Your task to perform on an android device: toggle show notifications on the lock screen Image 0: 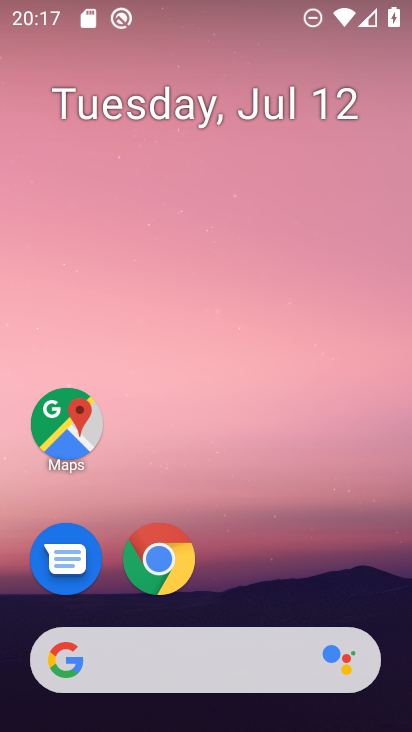
Step 0: drag from (379, 596) to (372, 178)
Your task to perform on an android device: toggle show notifications on the lock screen Image 1: 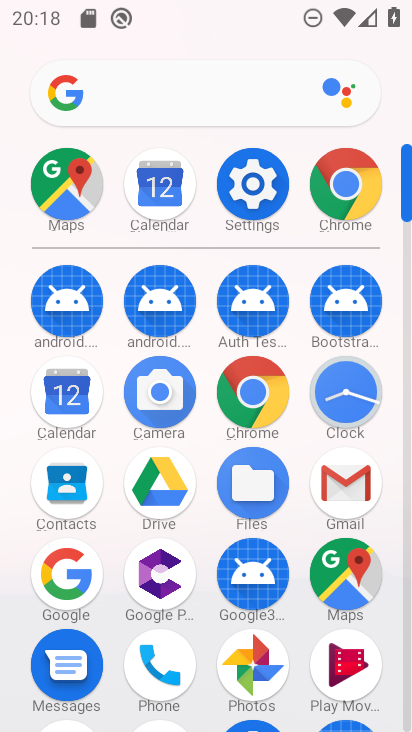
Step 1: click (261, 204)
Your task to perform on an android device: toggle show notifications on the lock screen Image 2: 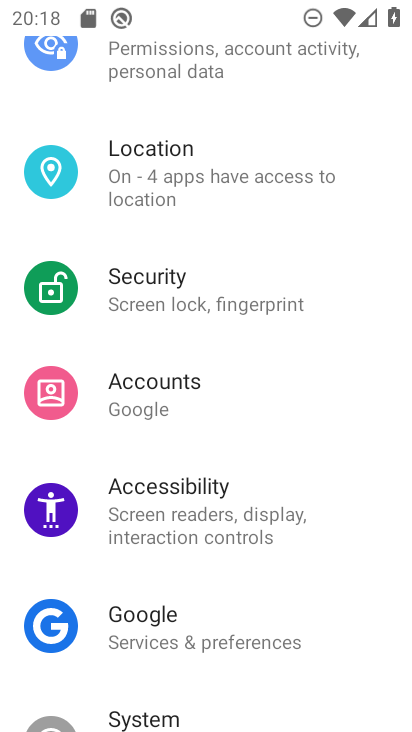
Step 2: drag from (363, 345) to (364, 405)
Your task to perform on an android device: toggle show notifications on the lock screen Image 3: 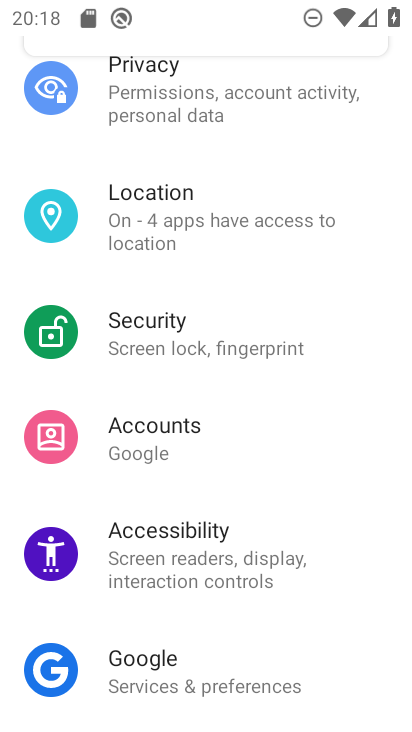
Step 3: drag from (361, 288) to (362, 409)
Your task to perform on an android device: toggle show notifications on the lock screen Image 4: 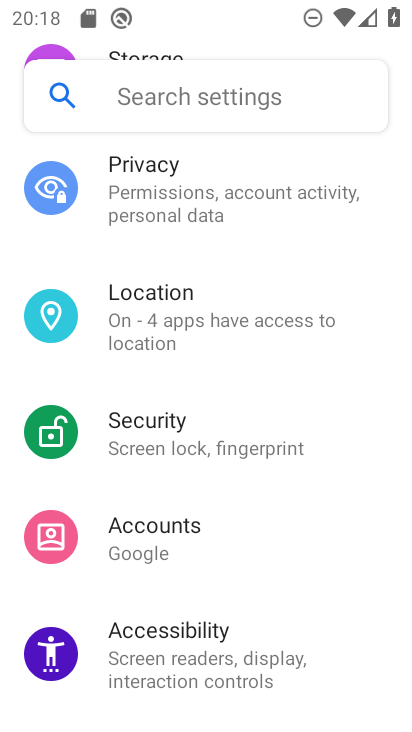
Step 4: drag from (361, 282) to (364, 378)
Your task to perform on an android device: toggle show notifications on the lock screen Image 5: 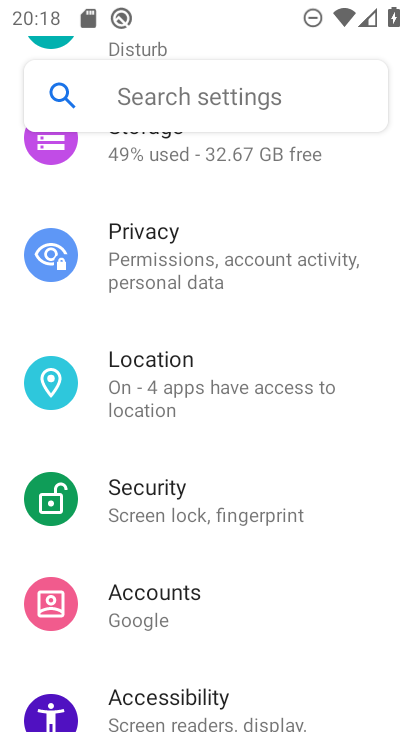
Step 5: drag from (376, 259) to (376, 355)
Your task to perform on an android device: toggle show notifications on the lock screen Image 6: 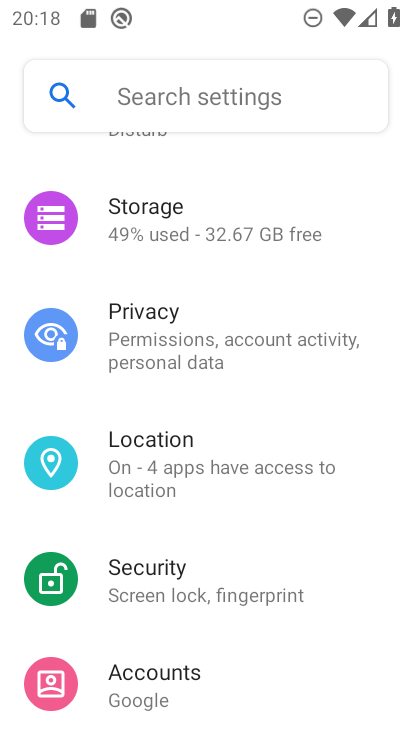
Step 6: drag from (378, 268) to (374, 366)
Your task to perform on an android device: toggle show notifications on the lock screen Image 7: 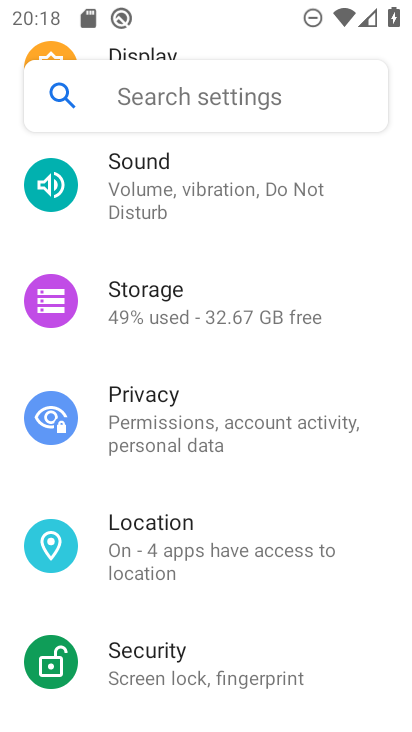
Step 7: drag from (375, 258) to (372, 344)
Your task to perform on an android device: toggle show notifications on the lock screen Image 8: 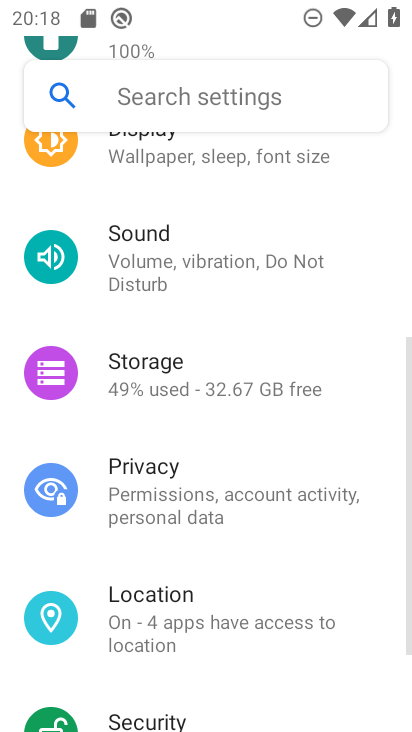
Step 8: drag from (362, 241) to (361, 326)
Your task to perform on an android device: toggle show notifications on the lock screen Image 9: 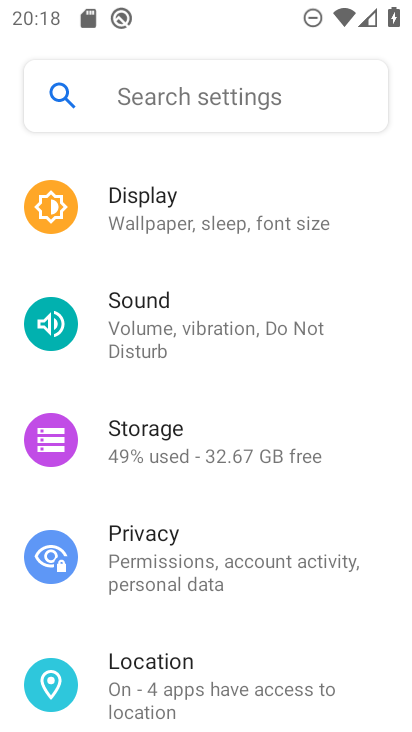
Step 9: drag from (357, 223) to (358, 321)
Your task to perform on an android device: toggle show notifications on the lock screen Image 10: 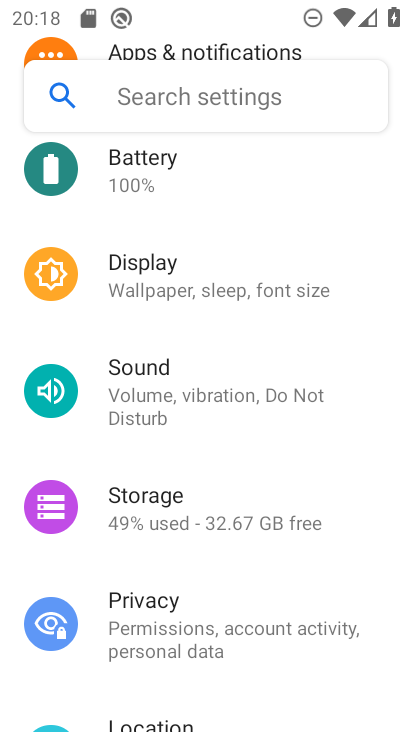
Step 10: drag from (361, 224) to (373, 323)
Your task to perform on an android device: toggle show notifications on the lock screen Image 11: 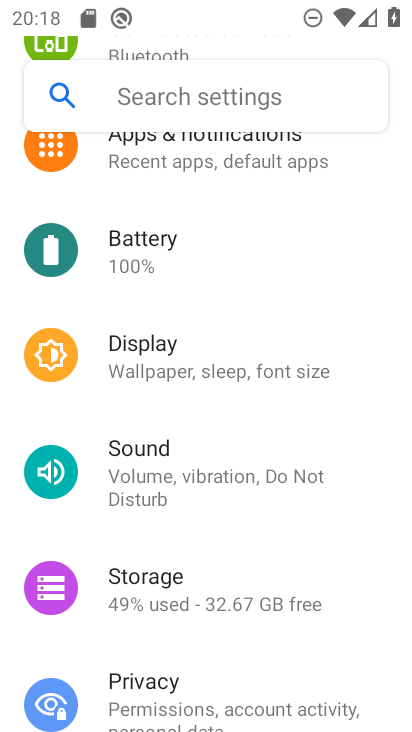
Step 11: drag from (379, 211) to (376, 326)
Your task to perform on an android device: toggle show notifications on the lock screen Image 12: 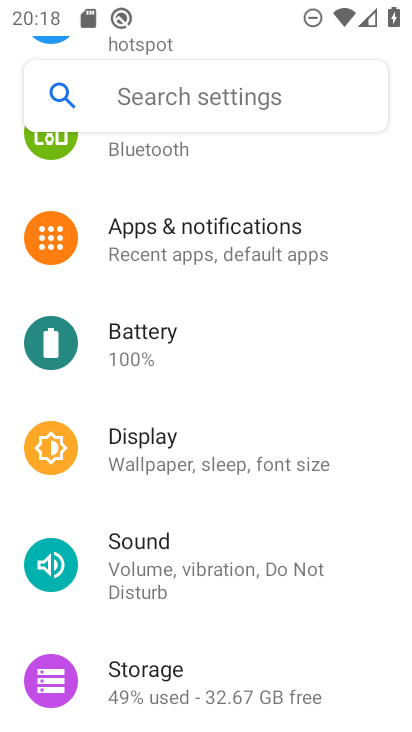
Step 12: drag from (364, 209) to (362, 382)
Your task to perform on an android device: toggle show notifications on the lock screen Image 13: 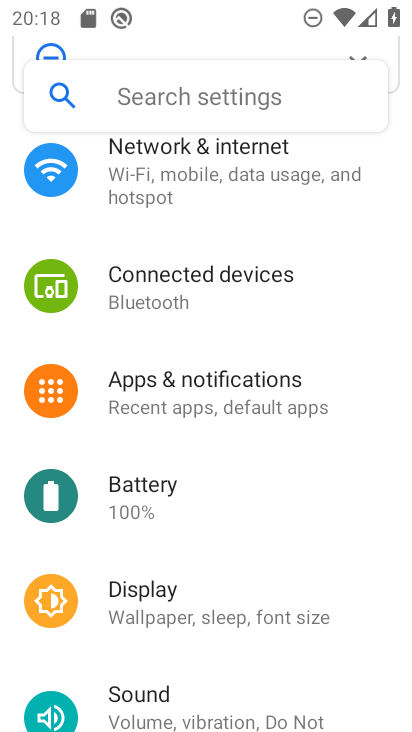
Step 13: click (313, 393)
Your task to perform on an android device: toggle show notifications on the lock screen Image 14: 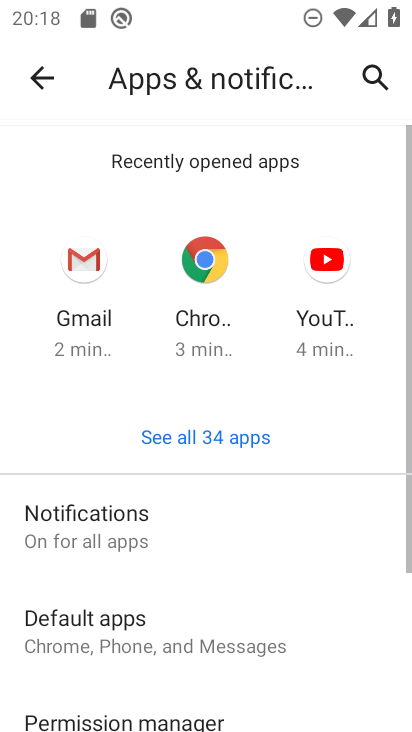
Step 14: drag from (309, 451) to (306, 279)
Your task to perform on an android device: toggle show notifications on the lock screen Image 15: 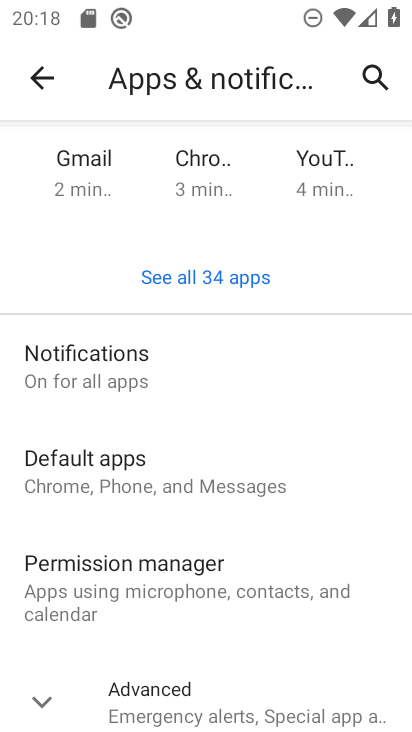
Step 15: drag from (339, 446) to (347, 309)
Your task to perform on an android device: toggle show notifications on the lock screen Image 16: 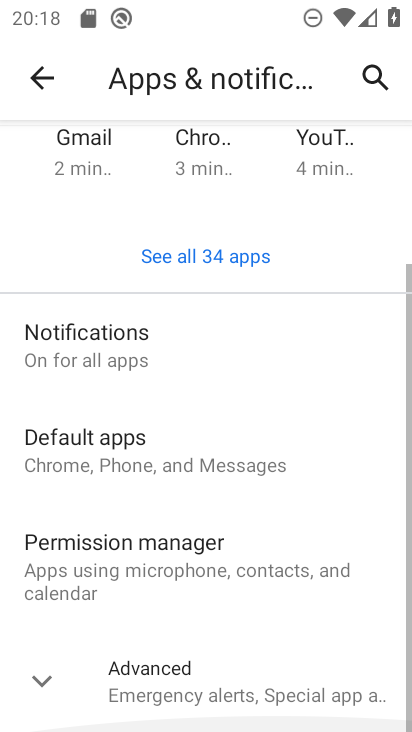
Step 16: click (290, 343)
Your task to perform on an android device: toggle show notifications on the lock screen Image 17: 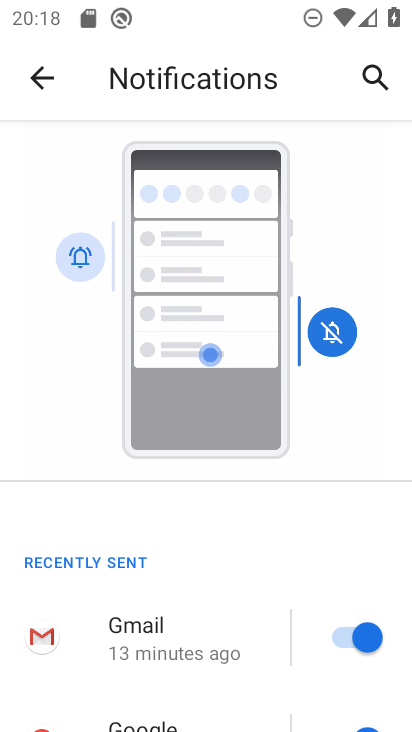
Step 17: drag from (307, 492) to (308, 379)
Your task to perform on an android device: toggle show notifications on the lock screen Image 18: 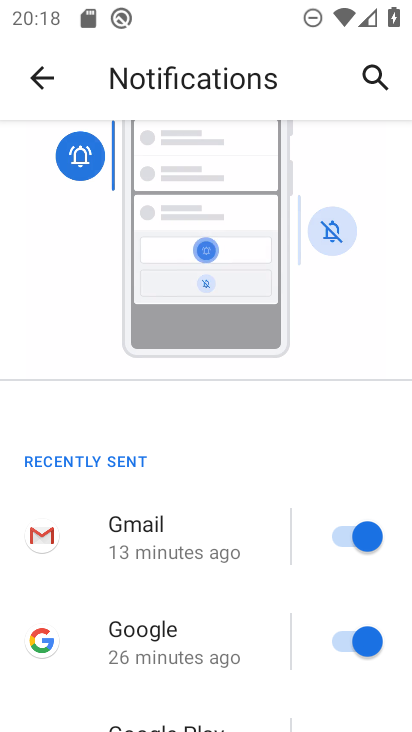
Step 18: drag from (309, 465) to (311, 348)
Your task to perform on an android device: toggle show notifications on the lock screen Image 19: 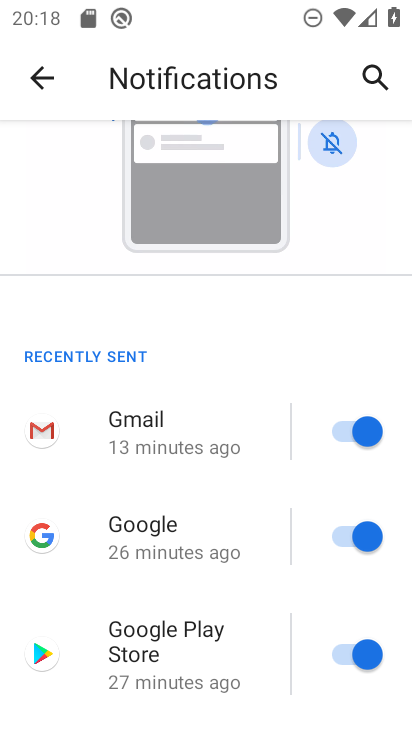
Step 19: drag from (263, 509) to (258, 388)
Your task to perform on an android device: toggle show notifications on the lock screen Image 20: 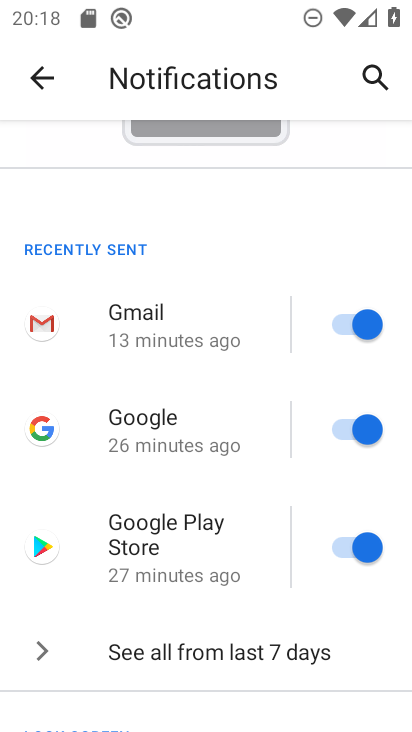
Step 20: drag from (255, 537) to (254, 411)
Your task to perform on an android device: toggle show notifications on the lock screen Image 21: 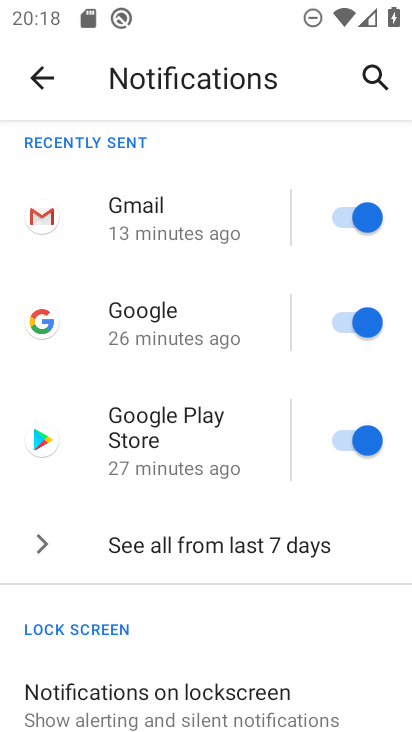
Step 21: drag from (256, 578) to (259, 445)
Your task to perform on an android device: toggle show notifications on the lock screen Image 22: 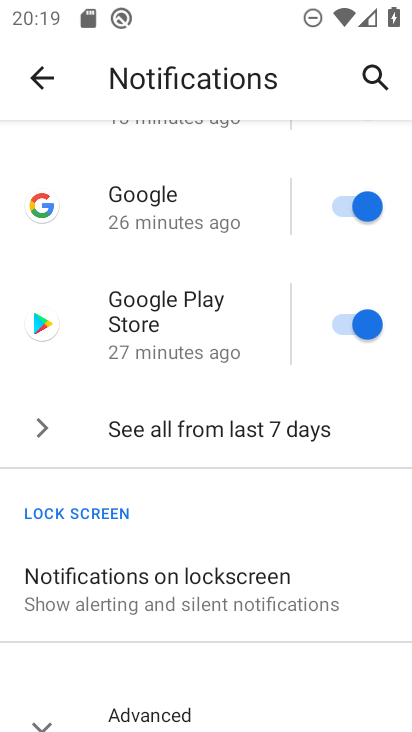
Step 22: drag from (276, 625) to (276, 482)
Your task to perform on an android device: toggle show notifications on the lock screen Image 23: 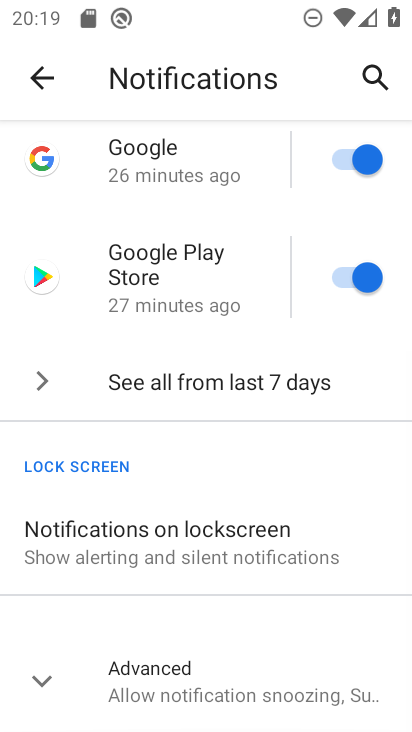
Step 23: click (270, 531)
Your task to perform on an android device: toggle show notifications on the lock screen Image 24: 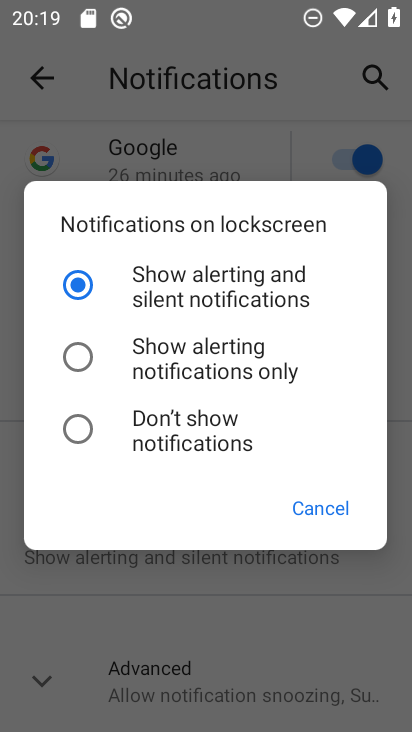
Step 24: click (92, 362)
Your task to perform on an android device: toggle show notifications on the lock screen Image 25: 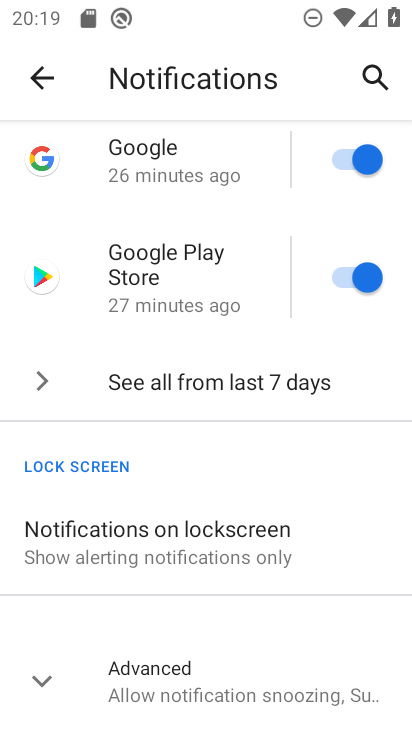
Step 25: task complete